Your task to perform on an android device: turn on data saver in the chrome app Image 0: 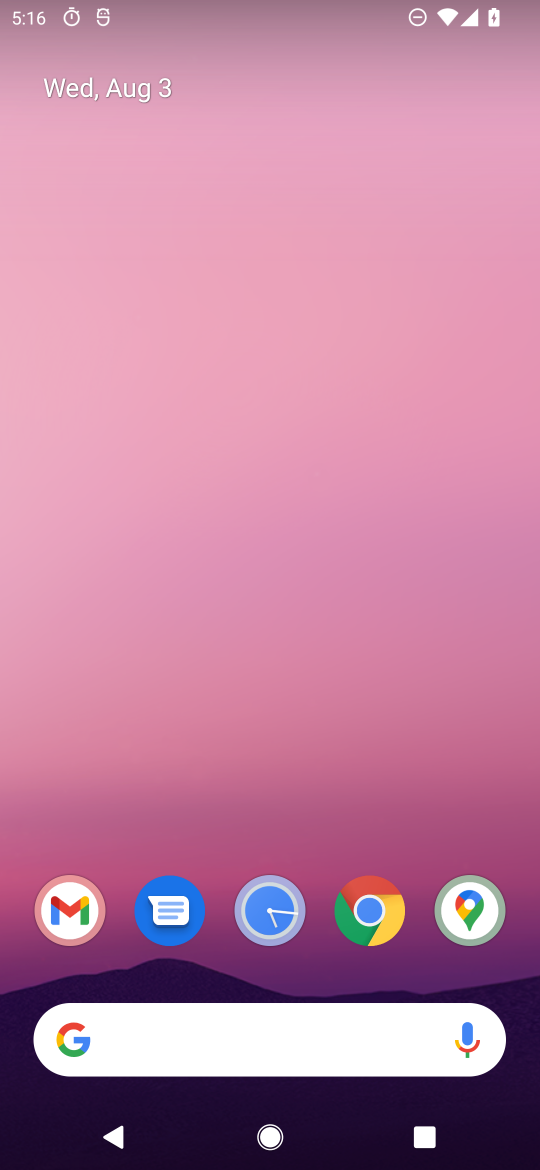
Step 0: click (362, 906)
Your task to perform on an android device: turn on data saver in the chrome app Image 1: 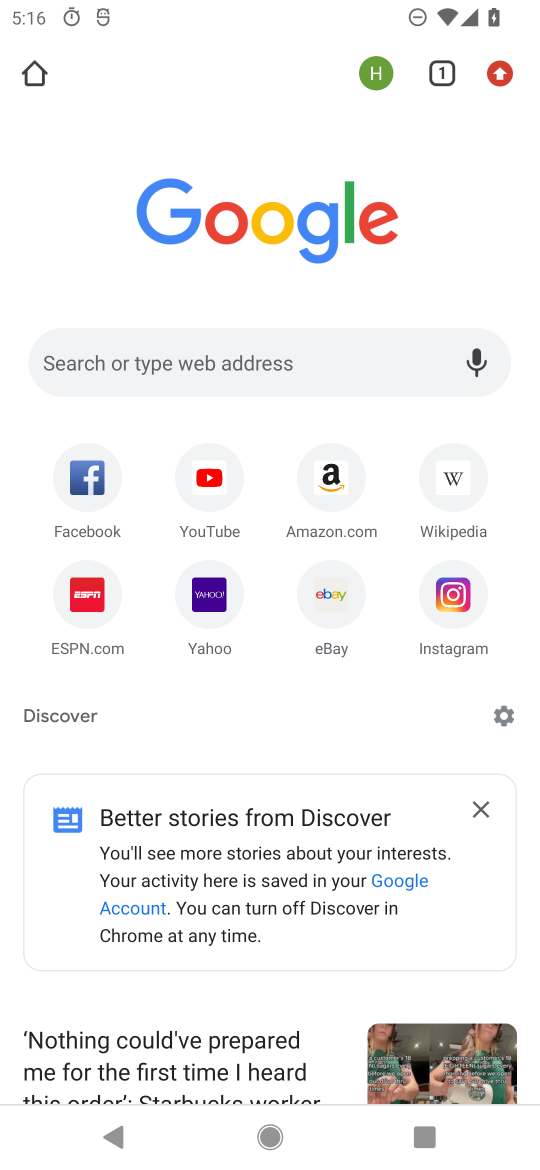
Step 1: click (483, 66)
Your task to perform on an android device: turn on data saver in the chrome app Image 2: 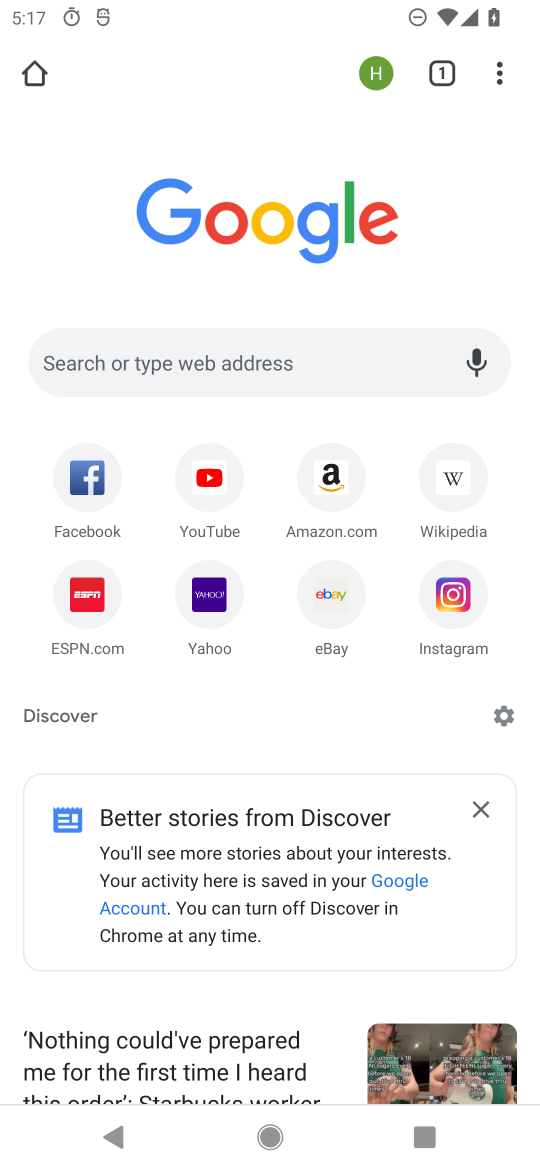
Step 2: click (496, 72)
Your task to perform on an android device: turn on data saver in the chrome app Image 3: 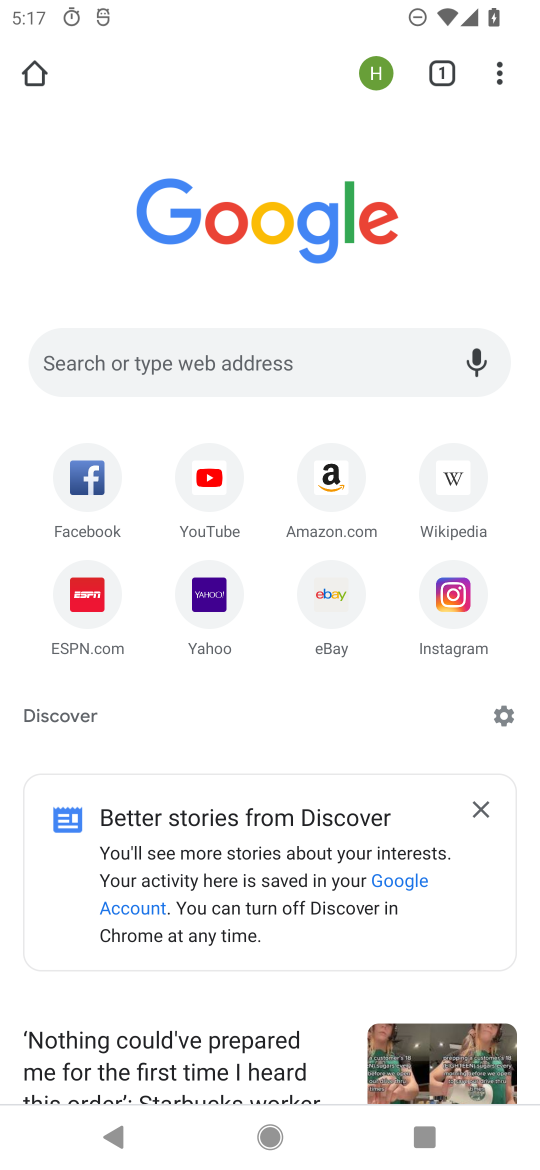
Step 3: click (509, 78)
Your task to perform on an android device: turn on data saver in the chrome app Image 4: 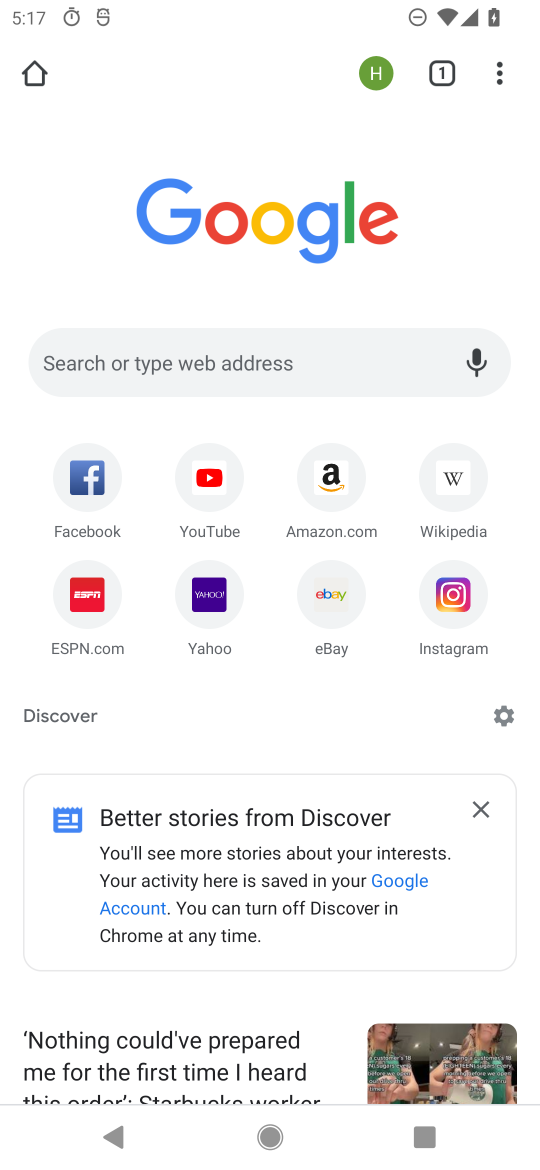
Step 4: click (498, 72)
Your task to perform on an android device: turn on data saver in the chrome app Image 5: 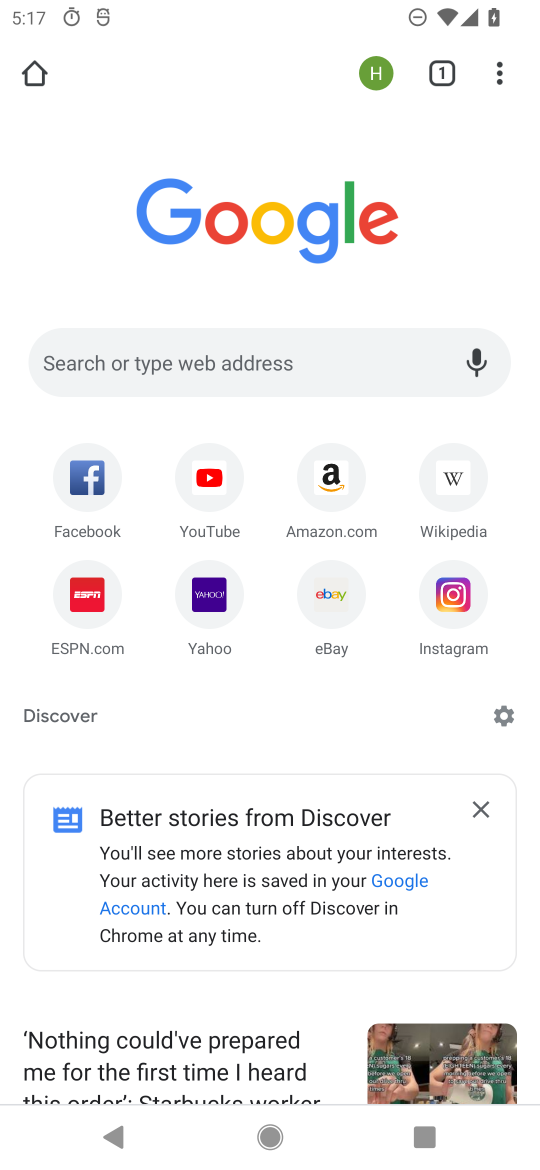
Step 5: task complete